Your task to perform on an android device: Go to Yahoo.com Image 0: 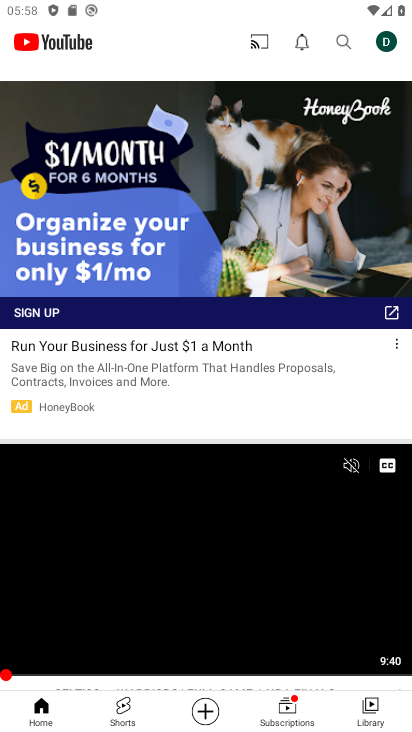
Step 0: press home button
Your task to perform on an android device: Go to Yahoo.com Image 1: 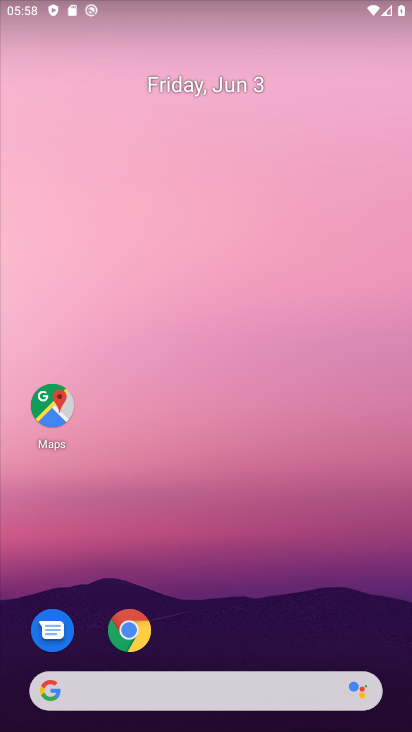
Step 1: click (148, 627)
Your task to perform on an android device: Go to Yahoo.com Image 2: 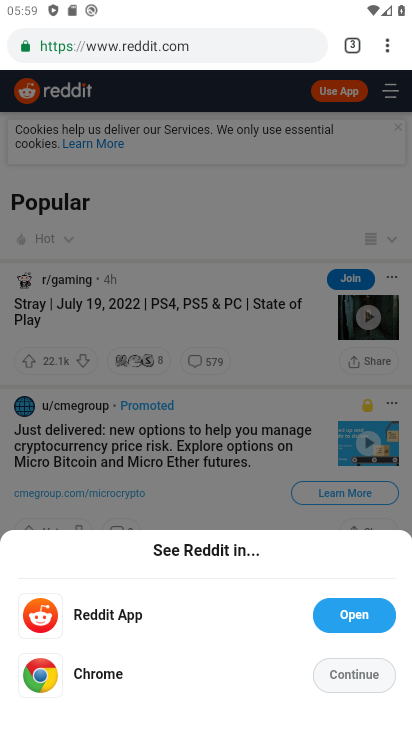
Step 2: click (361, 48)
Your task to perform on an android device: Go to Yahoo.com Image 3: 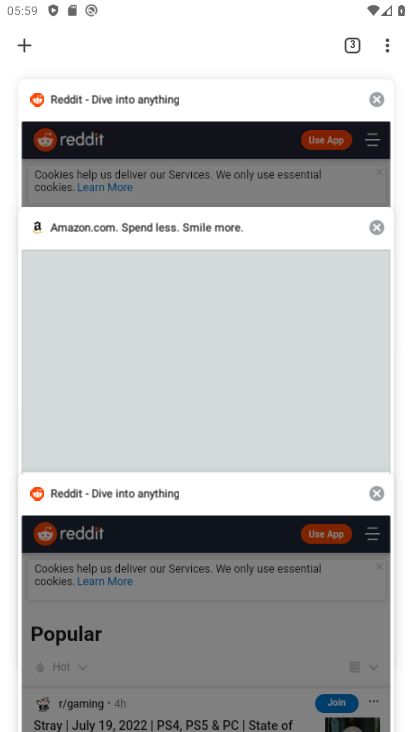
Step 3: click (35, 43)
Your task to perform on an android device: Go to Yahoo.com Image 4: 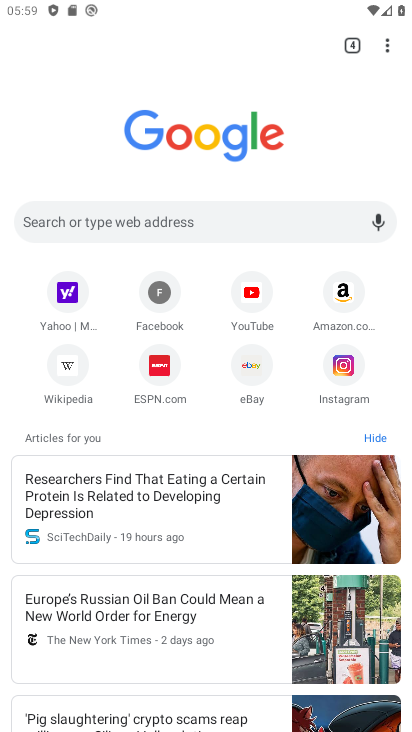
Step 4: click (86, 287)
Your task to perform on an android device: Go to Yahoo.com Image 5: 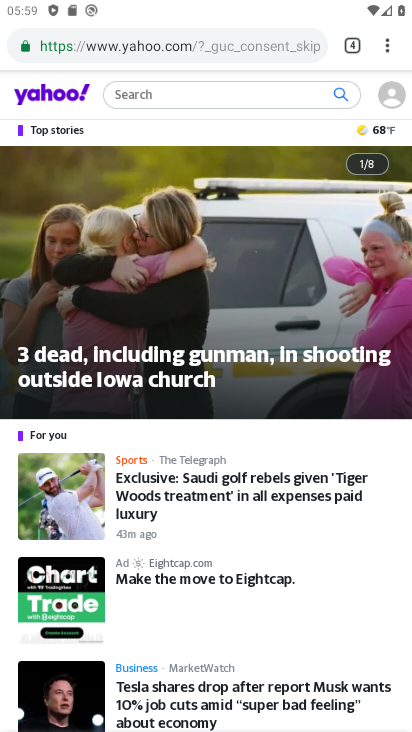
Step 5: task complete